Your task to perform on an android device: move an email to a new category in the gmail app Image 0: 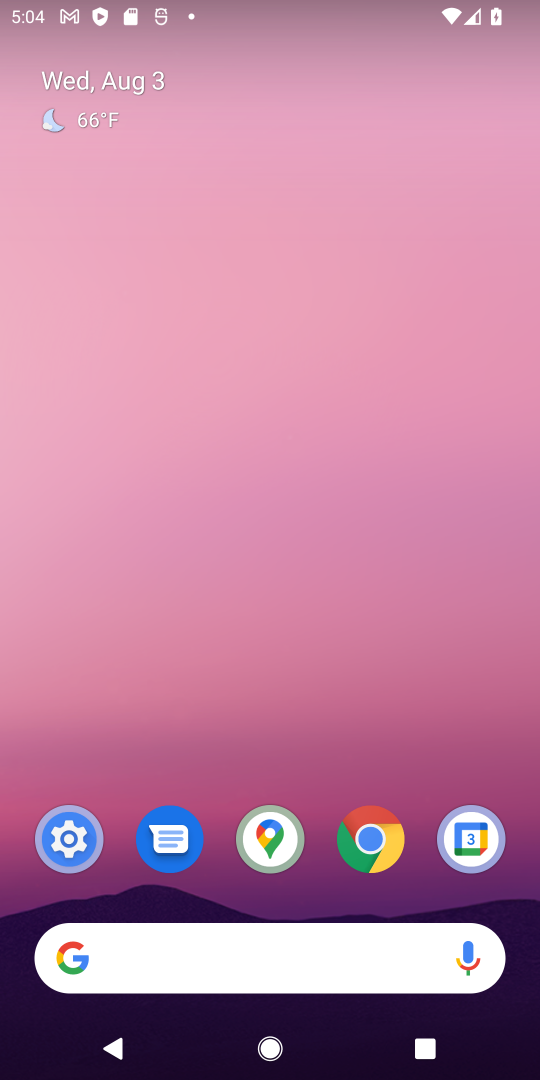
Step 0: drag from (209, 731) to (407, 11)
Your task to perform on an android device: move an email to a new category in the gmail app Image 1: 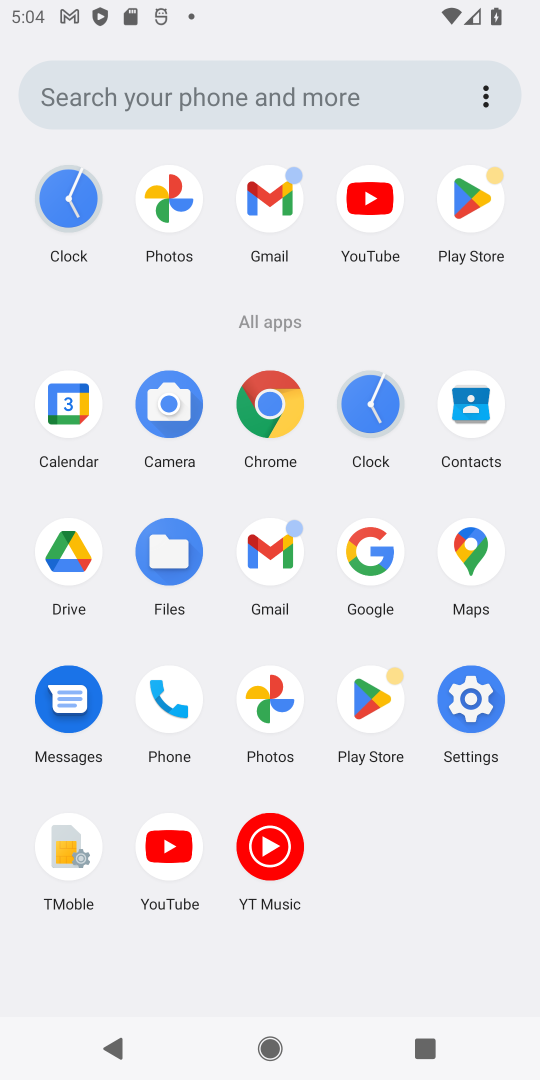
Step 1: click (274, 183)
Your task to perform on an android device: move an email to a new category in the gmail app Image 2: 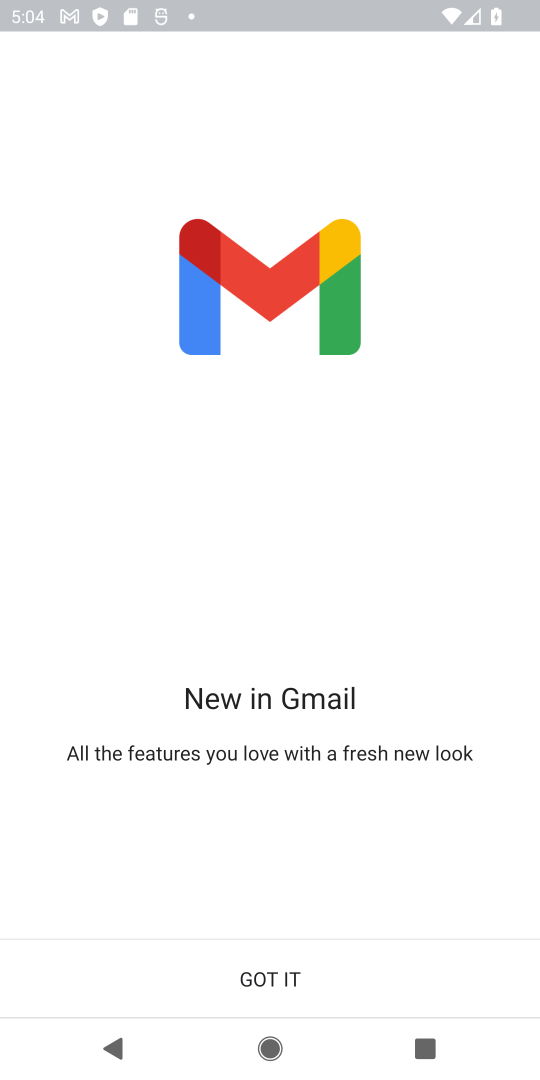
Step 2: click (297, 989)
Your task to perform on an android device: move an email to a new category in the gmail app Image 3: 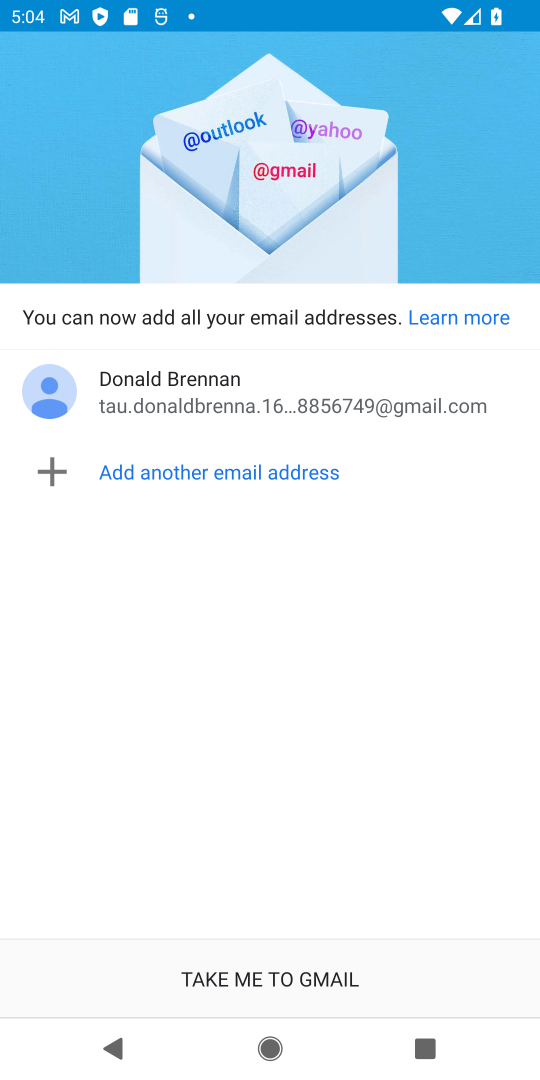
Step 3: click (282, 978)
Your task to perform on an android device: move an email to a new category in the gmail app Image 4: 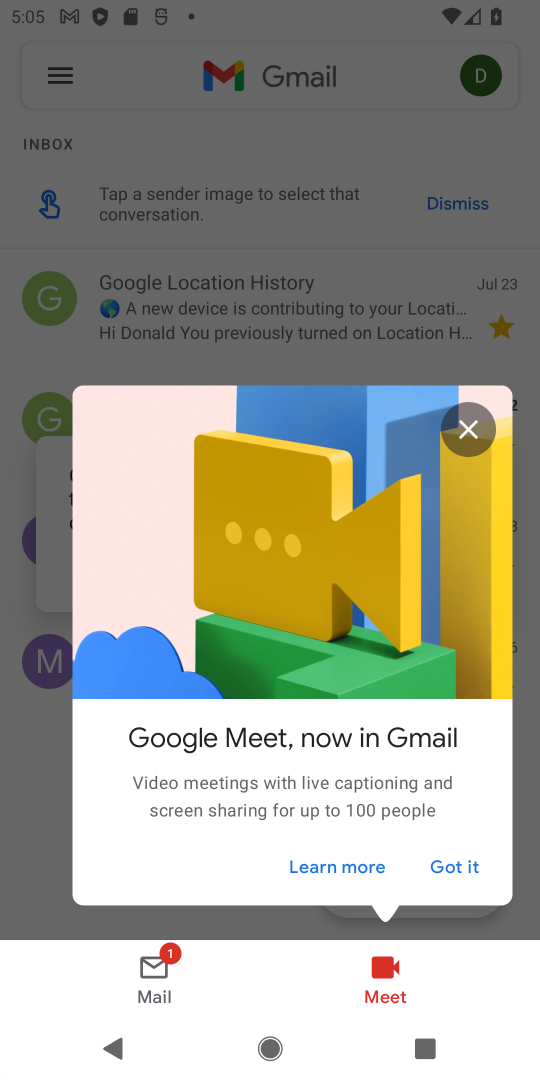
Step 4: click (491, 870)
Your task to perform on an android device: move an email to a new category in the gmail app Image 5: 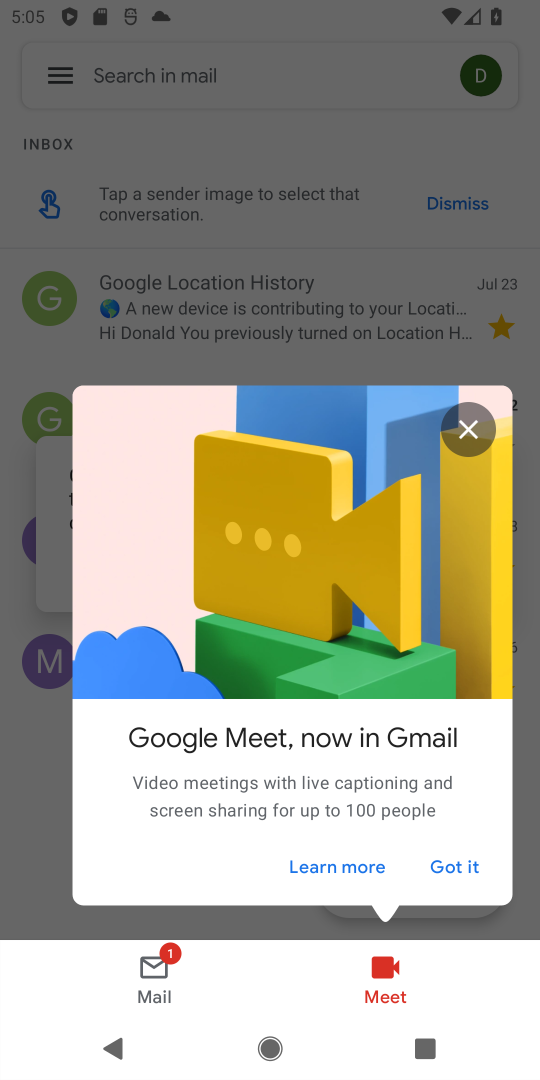
Step 5: click (470, 852)
Your task to perform on an android device: move an email to a new category in the gmail app Image 6: 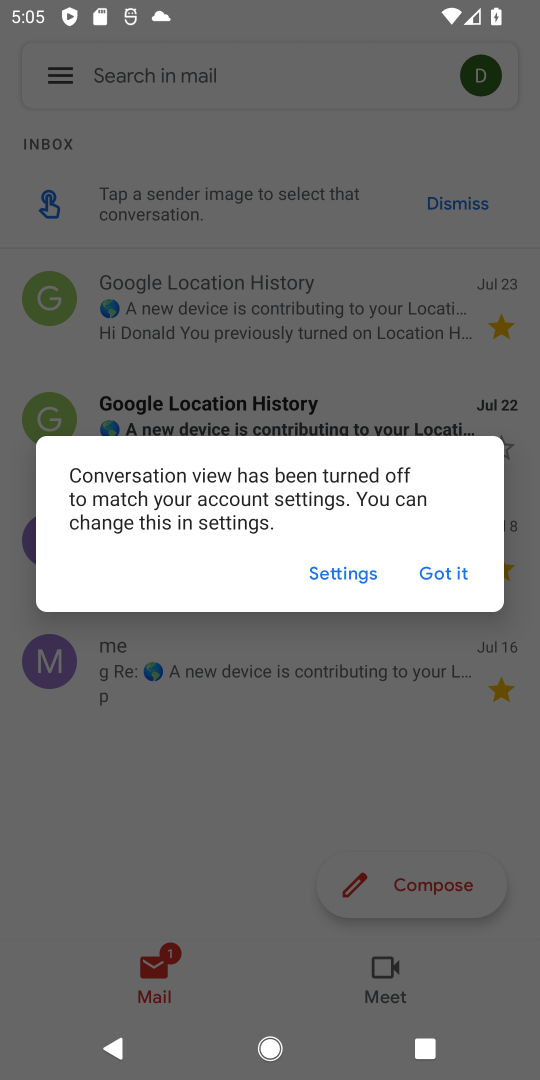
Step 6: click (442, 578)
Your task to perform on an android device: move an email to a new category in the gmail app Image 7: 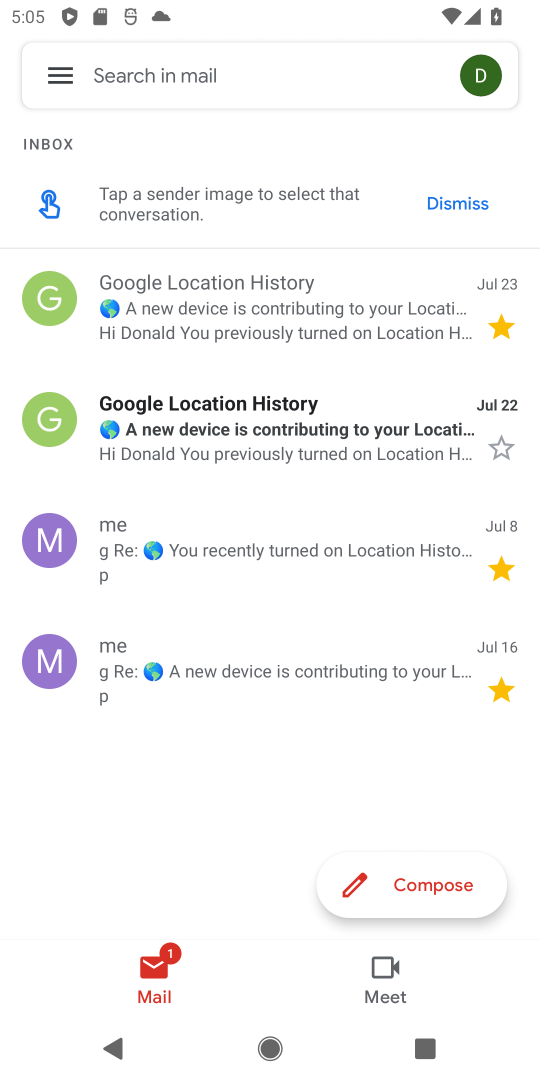
Step 7: click (299, 305)
Your task to perform on an android device: move an email to a new category in the gmail app Image 8: 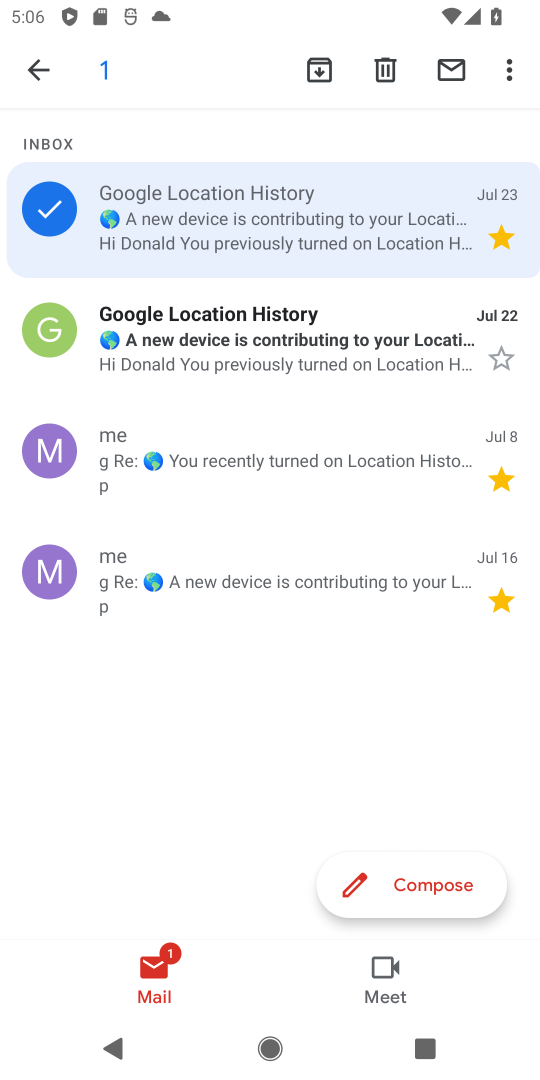
Step 8: click (505, 73)
Your task to perform on an android device: move an email to a new category in the gmail app Image 9: 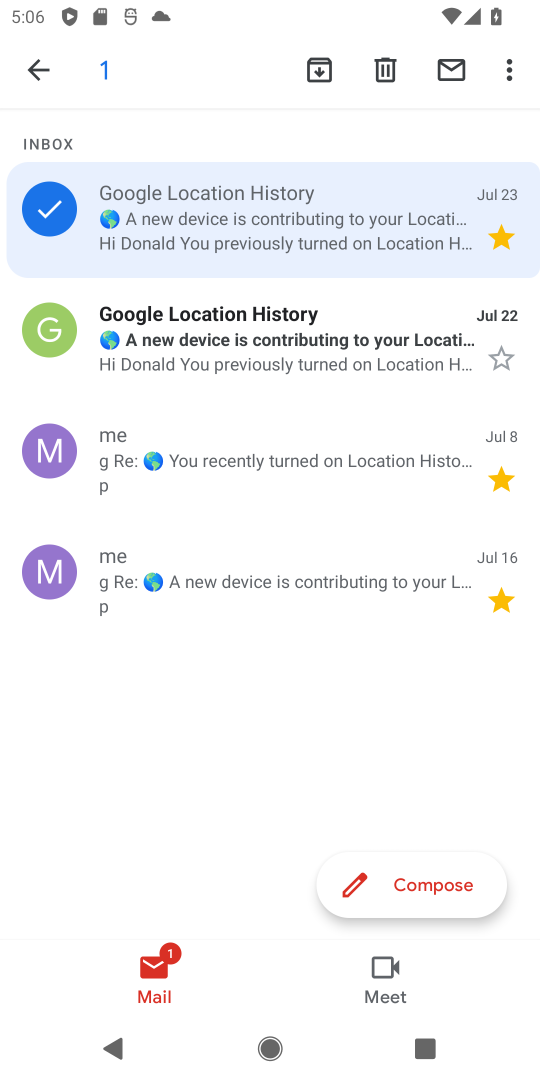
Step 9: click (505, 57)
Your task to perform on an android device: move an email to a new category in the gmail app Image 10: 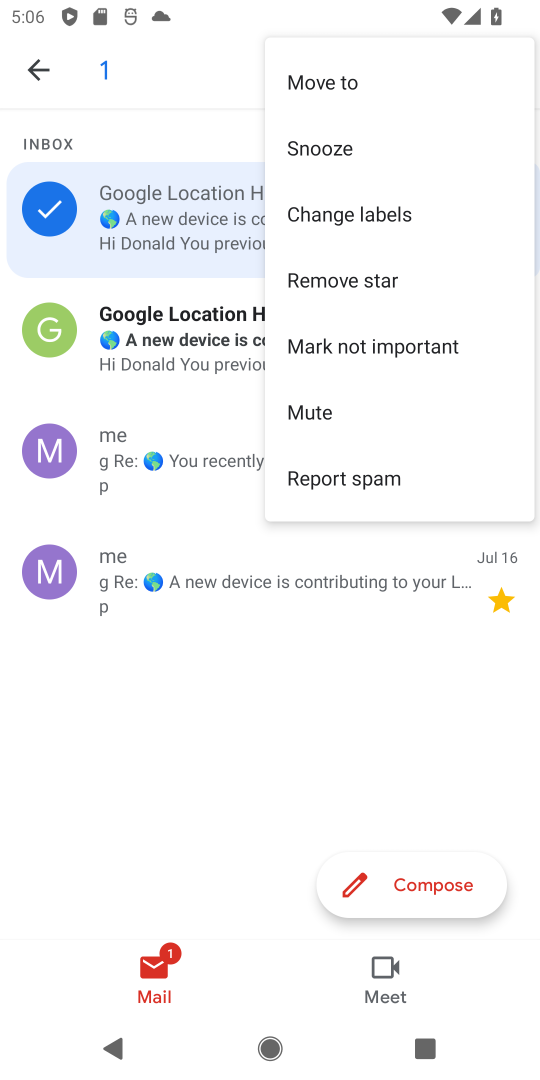
Step 10: click (373, 71)
Your task to perform on an android device: move an email to a new category in the gmail app Image 11: 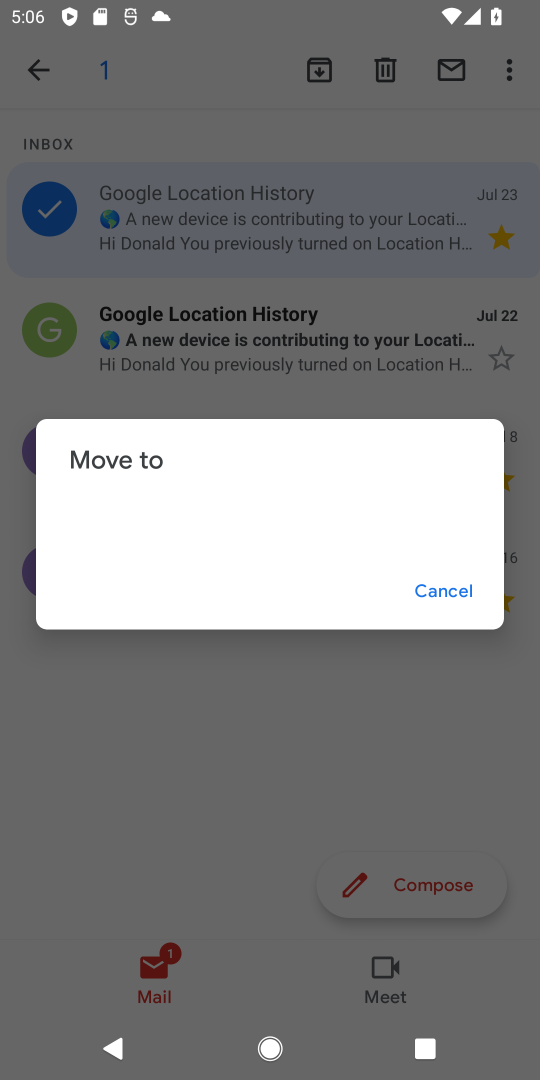
Step 11: task complete